Your task to perform on an android device: Check the weather Image 0: 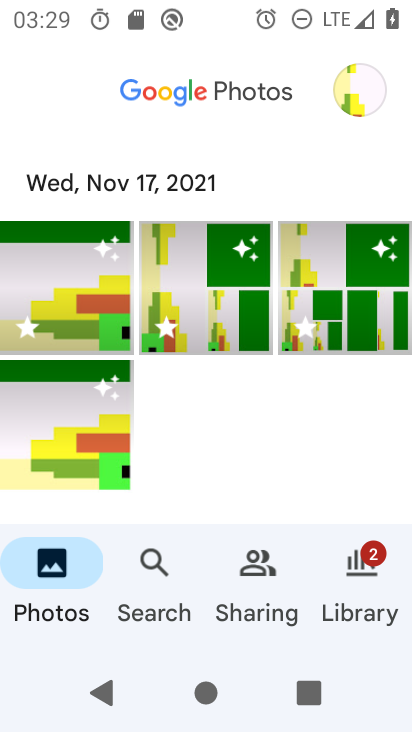
Step 0: press home button
Your task to perform on an android device: Check the weather Image 1: 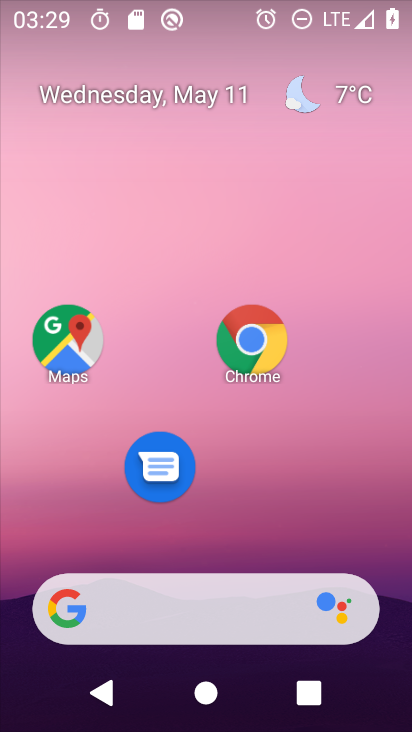
Step 1: click (351, 93)
Your task to perform on an android device: Check the weather Image 2: 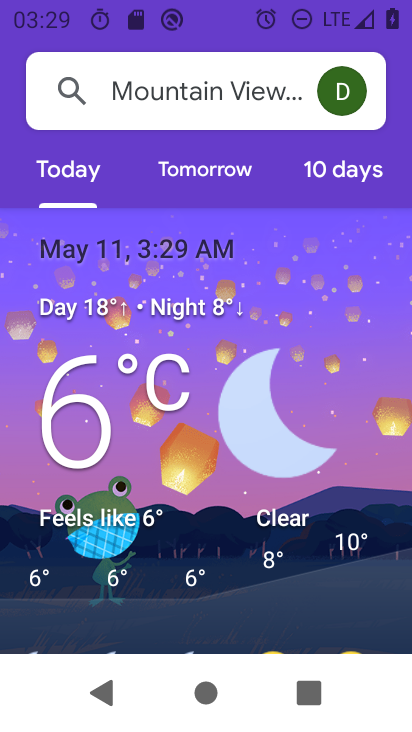
Step 2: task complete